Your task to perform on an android device: check the backup settings in the google photos Image 0: 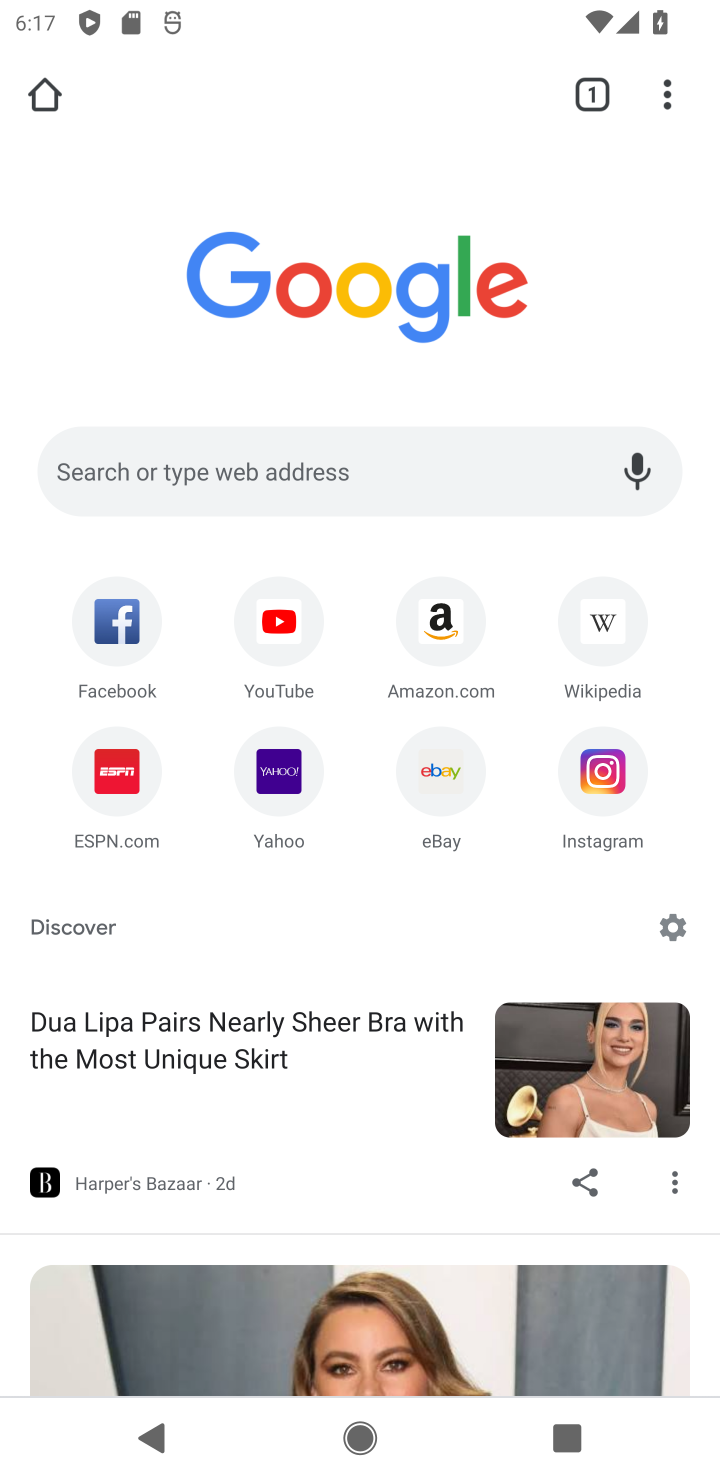
Step 0: press home button
Your task to perform on an android device: check the backup settings in the google photos Image 1: 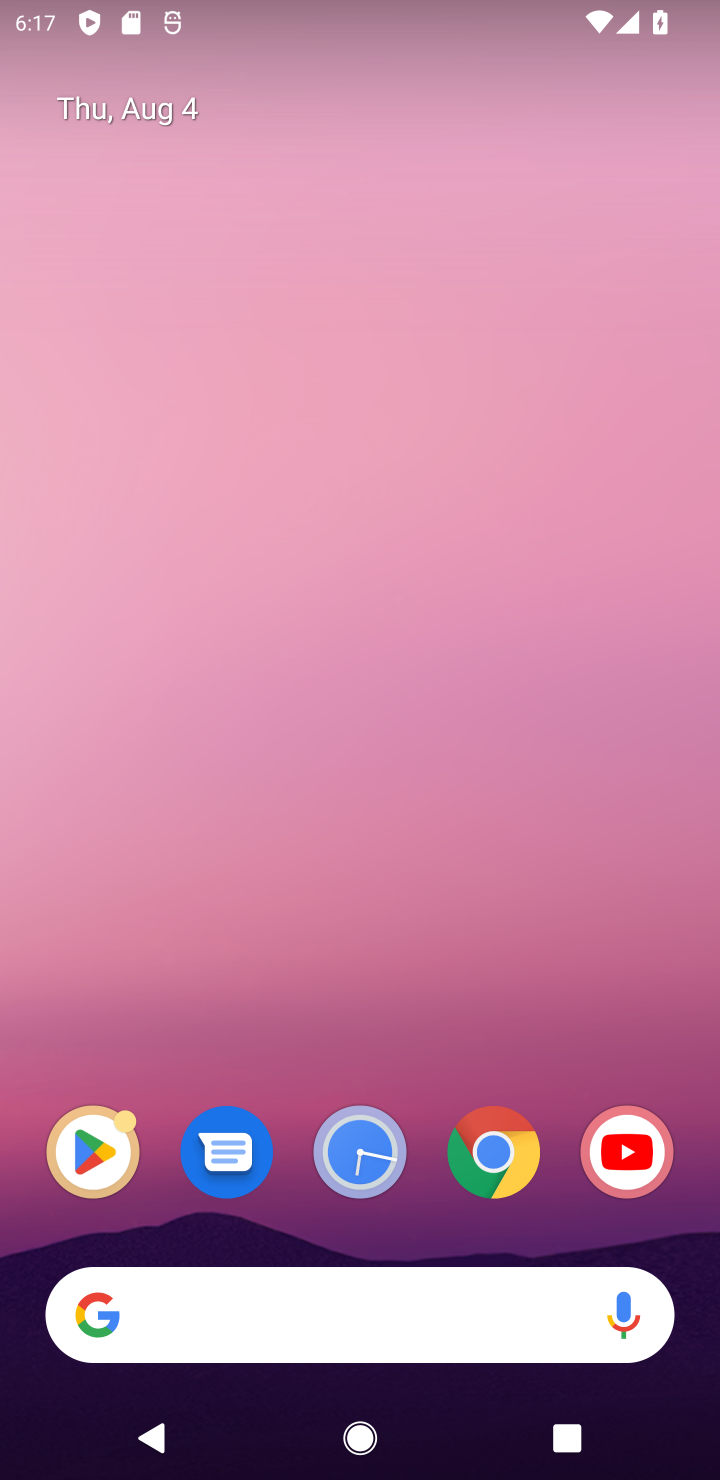
Step 1: drag from (229, 716) to (382, 89)
Your task to perform on an android device: check the backup settings in the google photos Image 2: 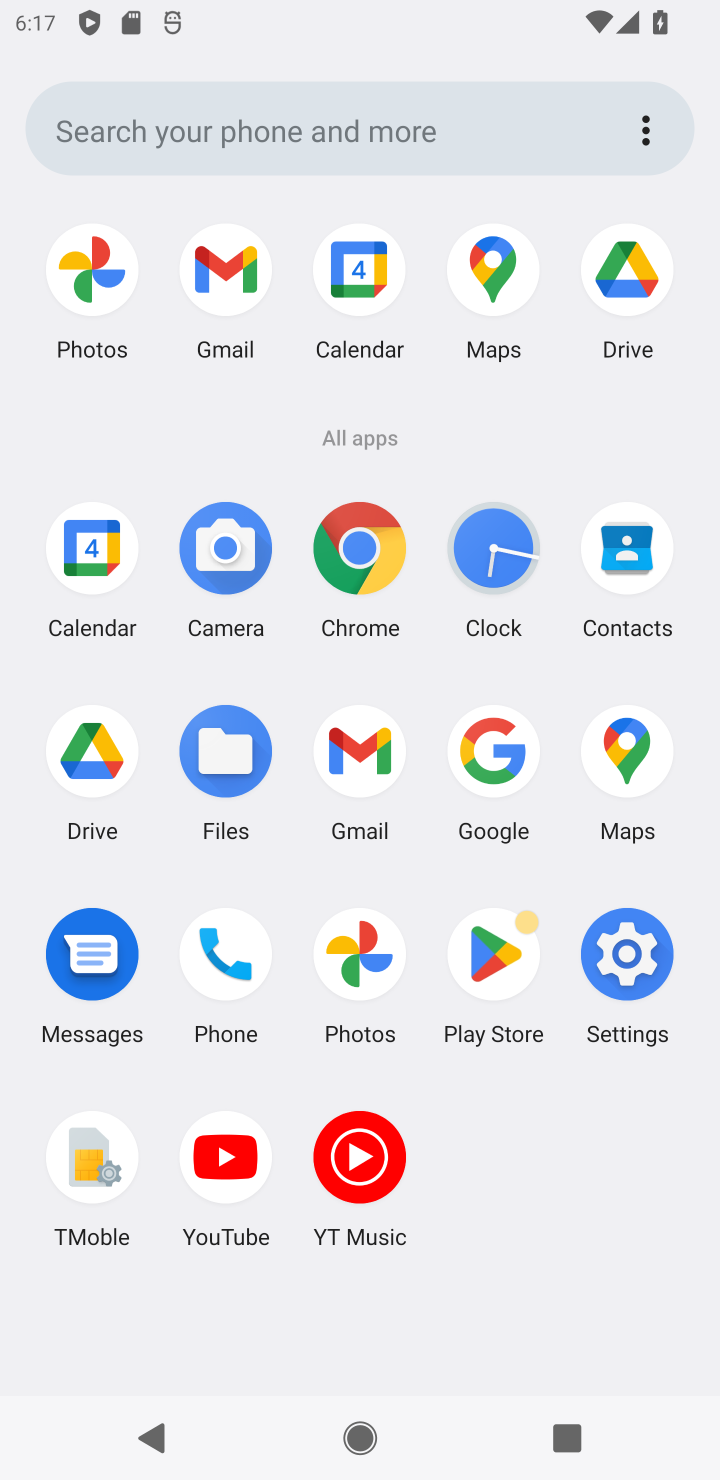
Step 2: click (72, 291)
Your task to perform on an android device: check the backup settings in the google photos Image 3: 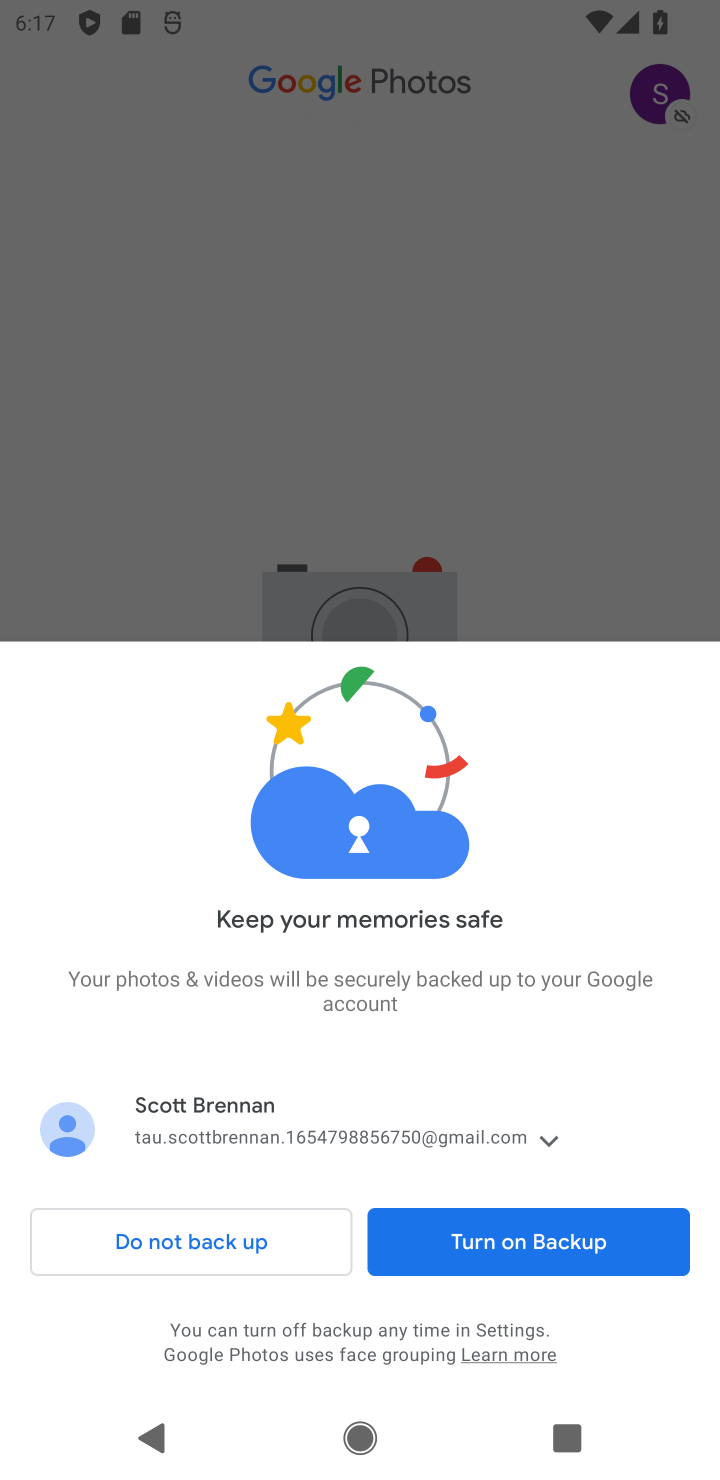
Step 3: click (266, 1246)
Your task to perform on an android device: check the backup settings in the google photos Image 4: 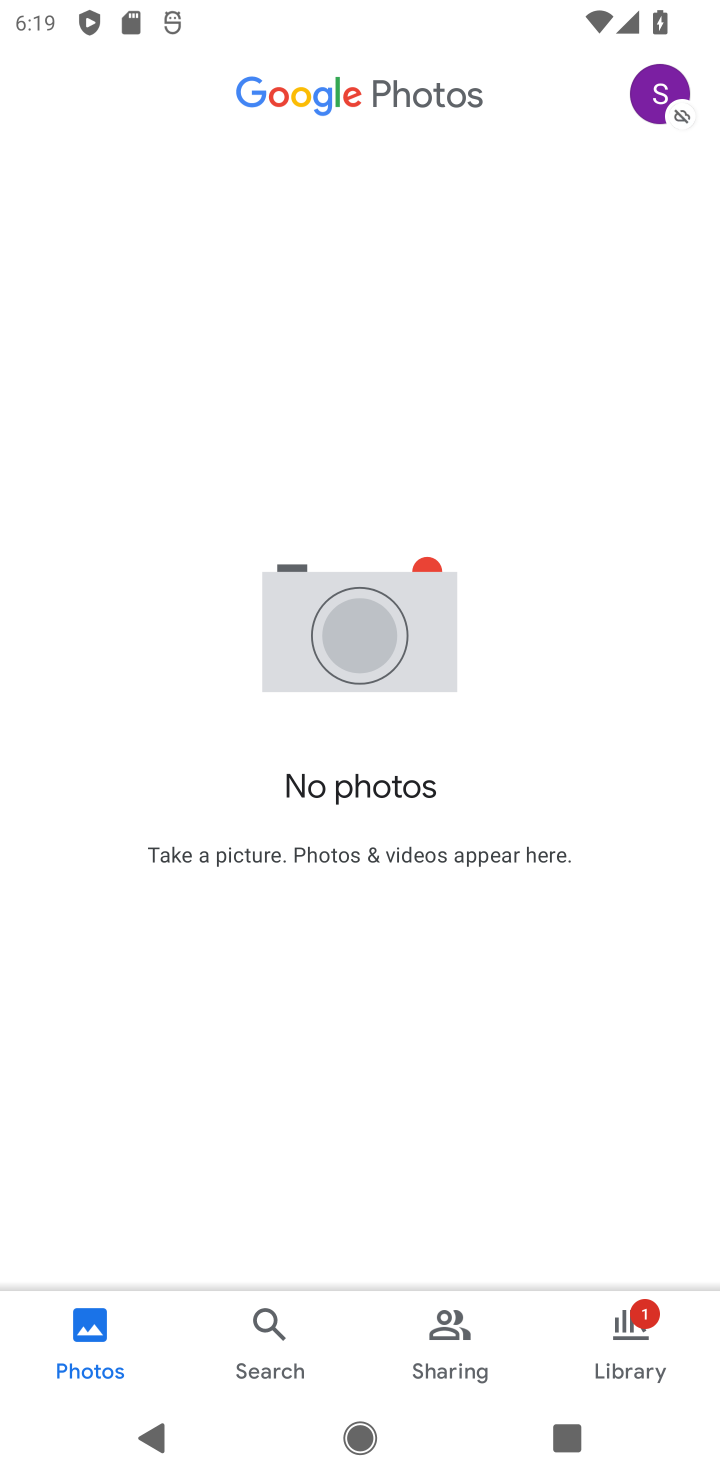
Step 4: task complete